Your task to perform on an android device: turn notification dots off Image 0: 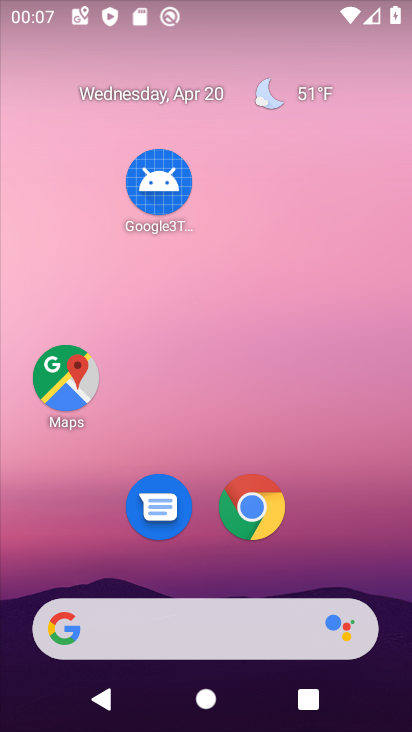
Step 0: drag from (200, 574) to (162, 52)
Your task to perform on an android device: turn notification dots off Image 1: 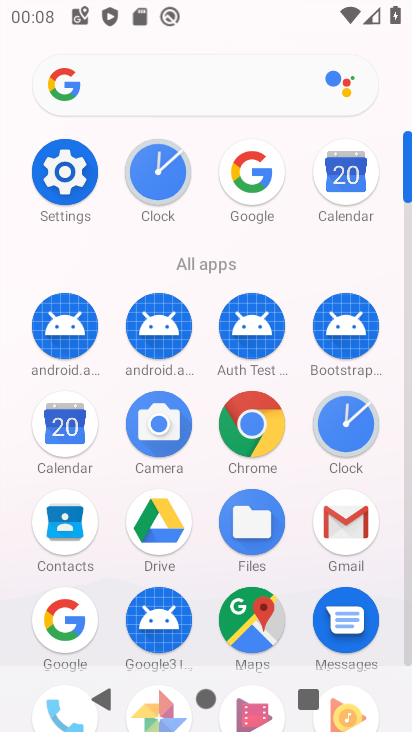
Step 1: click (62, 173)
Your task to perform on an android device: turn notification dots off Image 2: 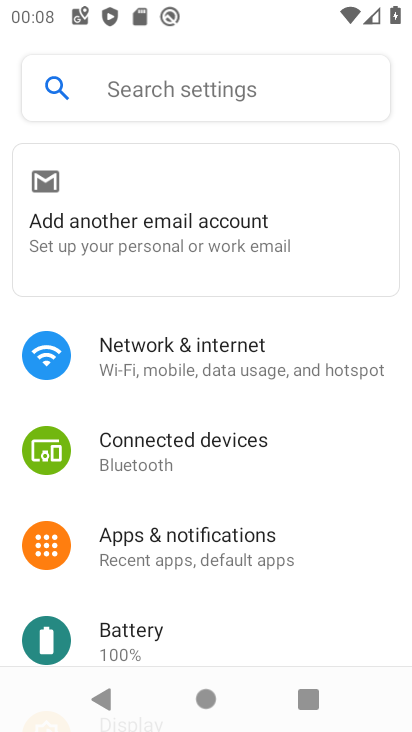
Step 2: click (230, 531)
Your task to perform on an android device: turn notification dots off Image 3: 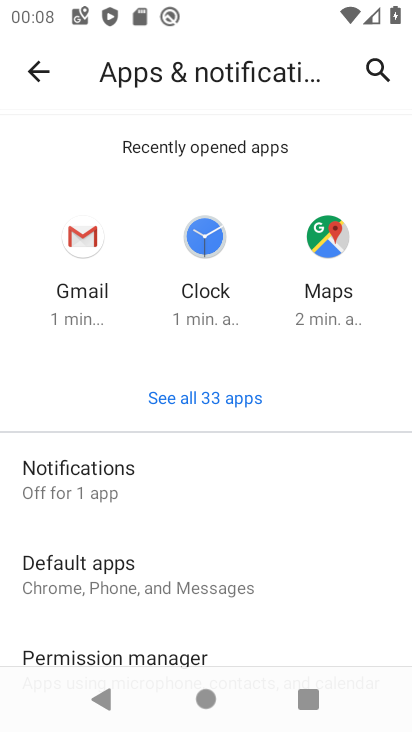
Step 3: click (67, 468)
Your task to perform on an android device: turn notification dots off Image 4: 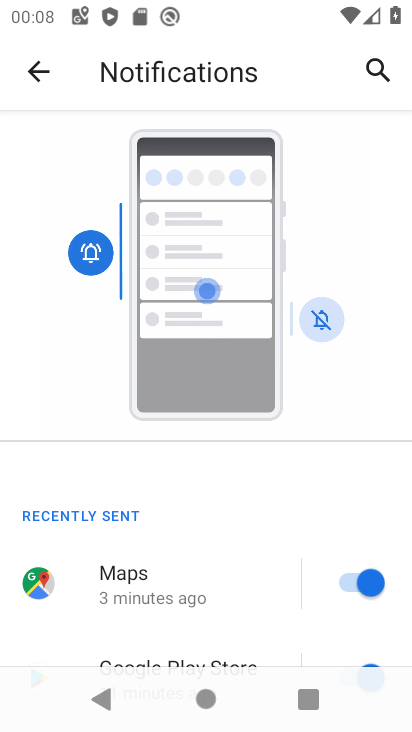
Step 4: drag from (211, 592) to (180, 150)
Your task to perform on an android device: turn notification dots off Image 5: 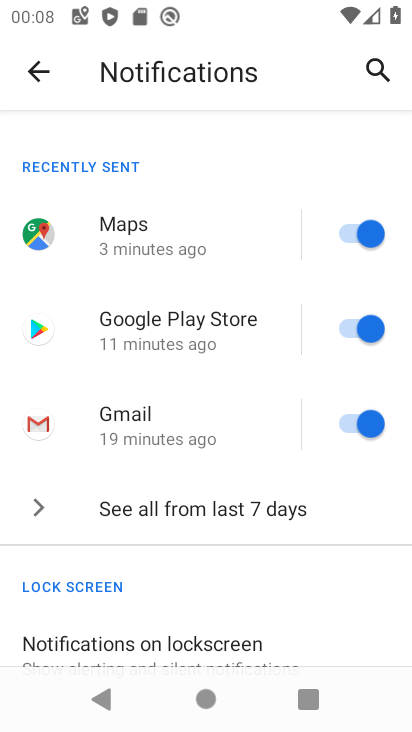
Step 5: drag from (239, 600) to (224, 225)
Your task to perform on an android device: turn notification dots off Image 6: 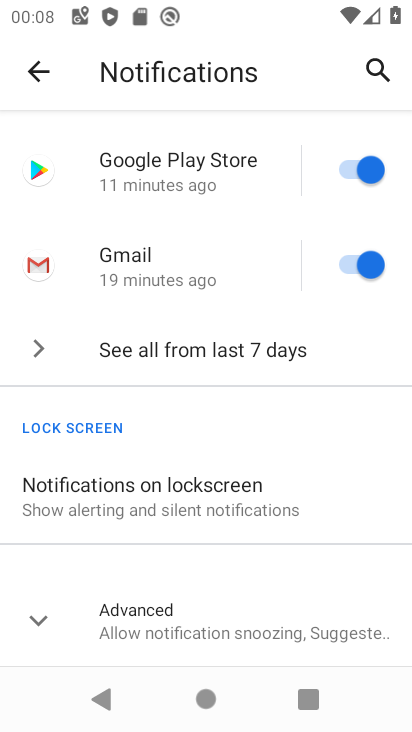
Step 6: click (115, 625)
Your task to perform on an android device: turn notification dots off Image 7: 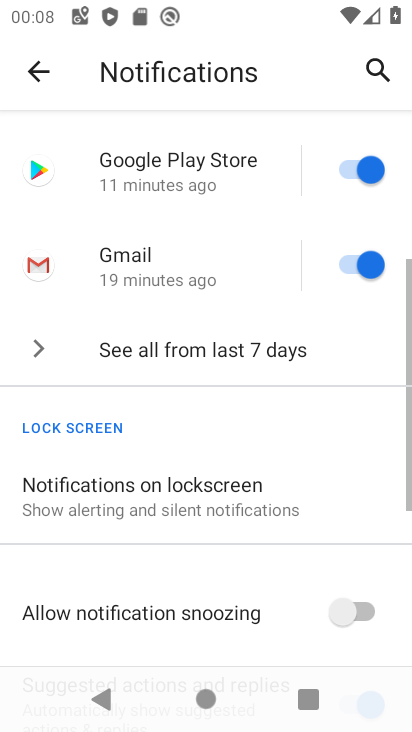
Step 7: drag from (160, 544) to (159, 92)
Your task to perform on an android device: turn notification dots off Image 8: 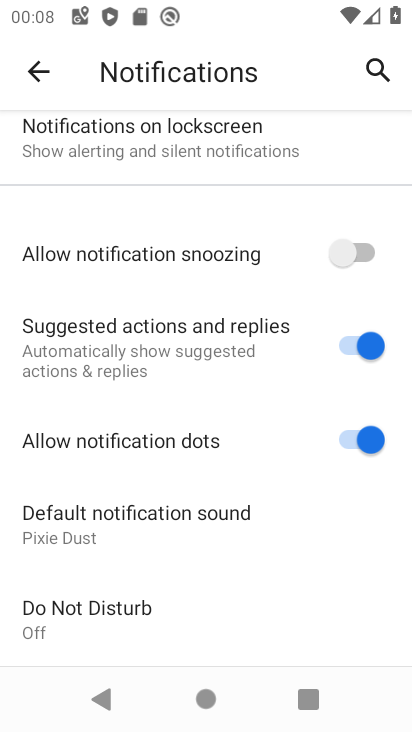
Step 8: click (371, 441)
Your task to perform on an android device: turn notification dots off Image 9: 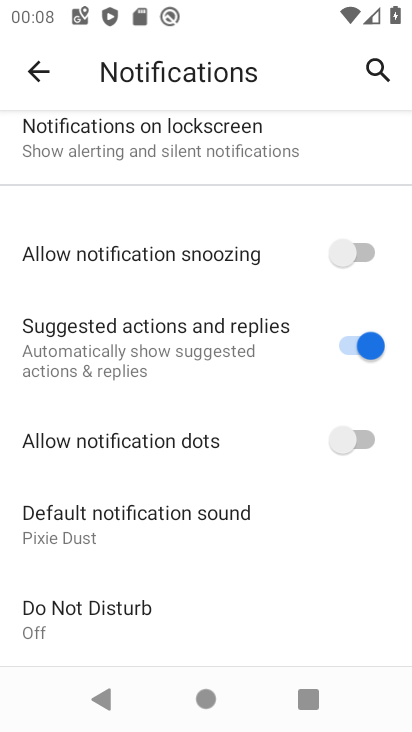
Step 9: task complete